Your task to perform on an android device: turn vacation reply on in the gmail app Image 0: 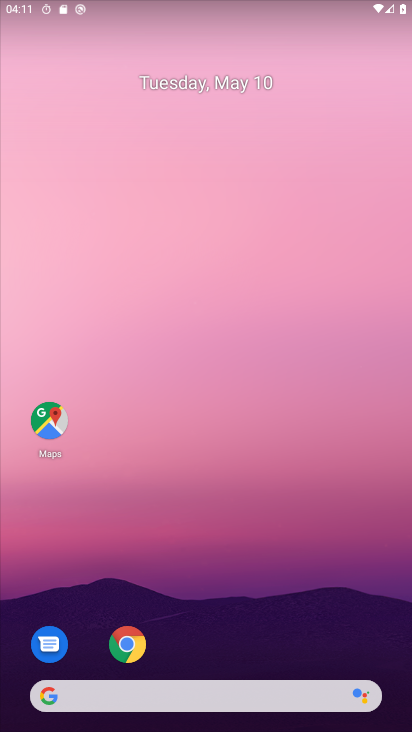
Step 0: drag from (205, 634) to (254, 88)
Your task to perform on an android device: turn vacation reply on in the gmail app Image 1: 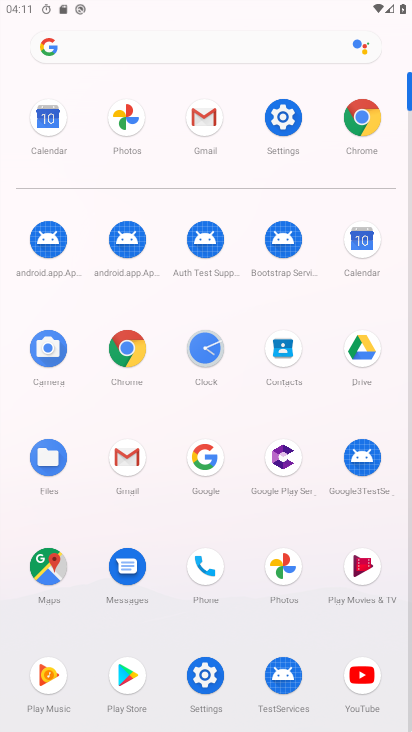
Step 1: click (127, 447)
Your task to perform on an android device: turn vacation reply on in the gmail app Image 2: 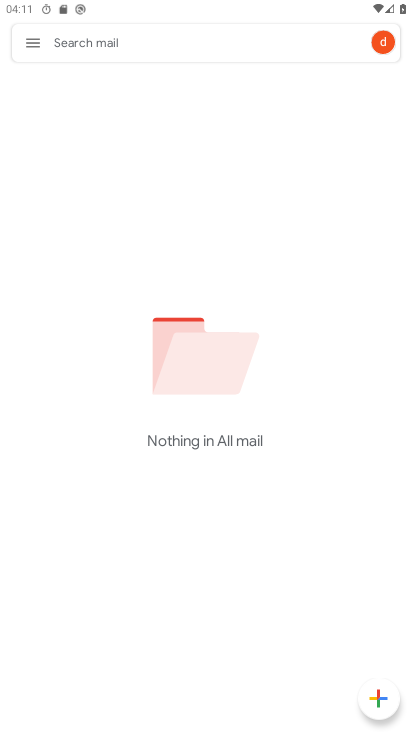
Step 2: click (26, 35)
Your task to perform on an android device: turn vacation reply on in the gmail app Image 3: 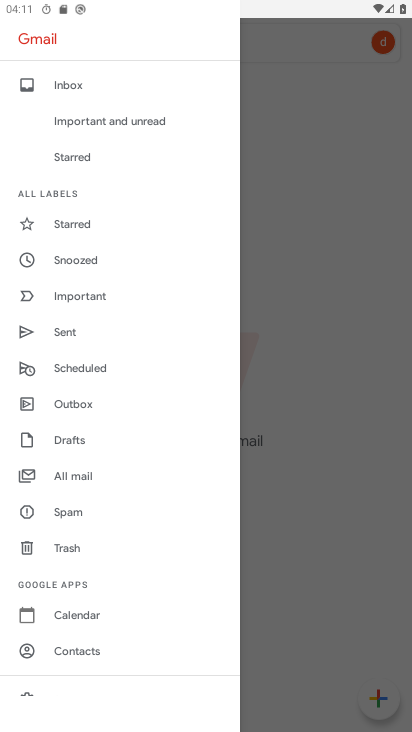
Step 3: drag from (118, 627) to (181, 123)
Your task to perform on an android device: turn vacation reply on in the gmail app Image 4: 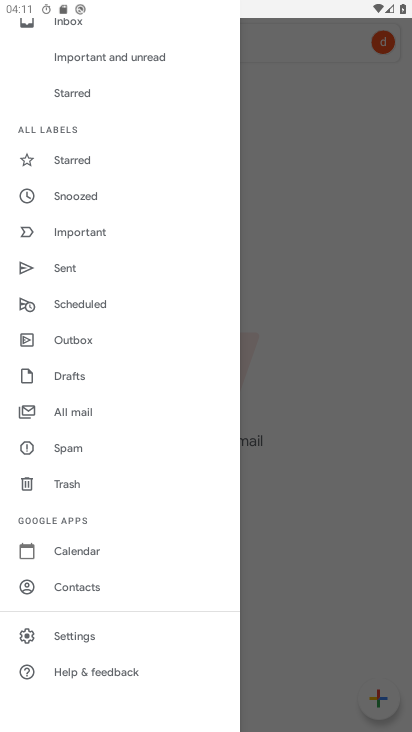
Step 4: click (97, 628)
Your task to perform on an android device: turn vacation reply on in the gmail app Image 5: 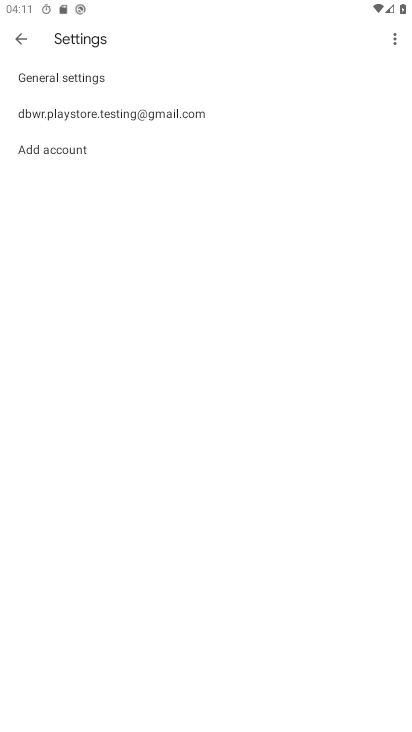
Step 5: click (147, 108)
Your task to perform on an android device: turn vacation reply on in the gmail app Image 6: 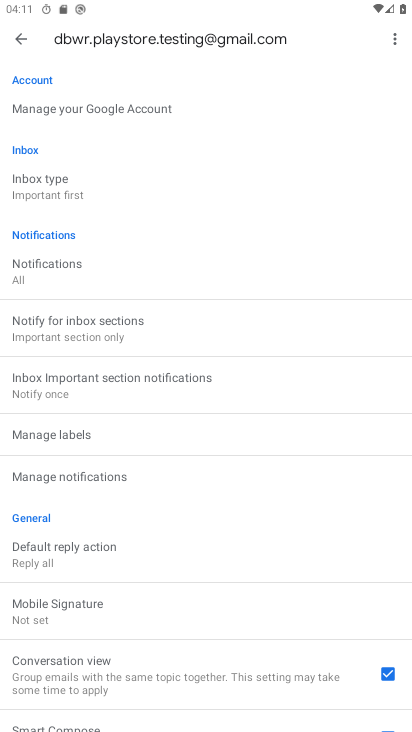
Step 6: drag from (122, 636) to (160, 169)
Your task to perform on an android device: turn vacation reply on in the gmail app Image 7: 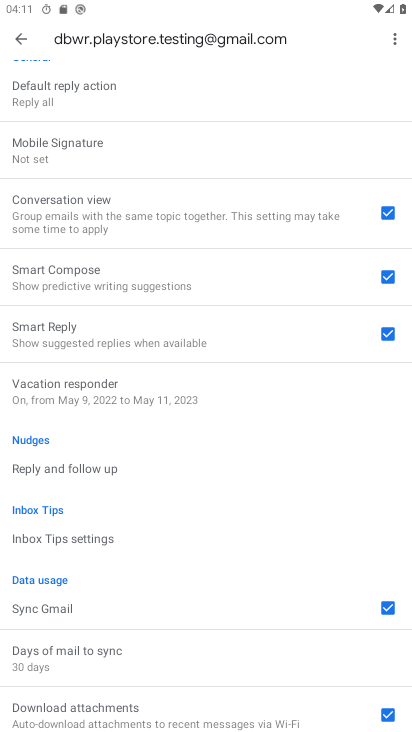
Step 7: click (93, 383)
Your task to perform on an android device: turn vacation reply on in the gmail app Image 8: 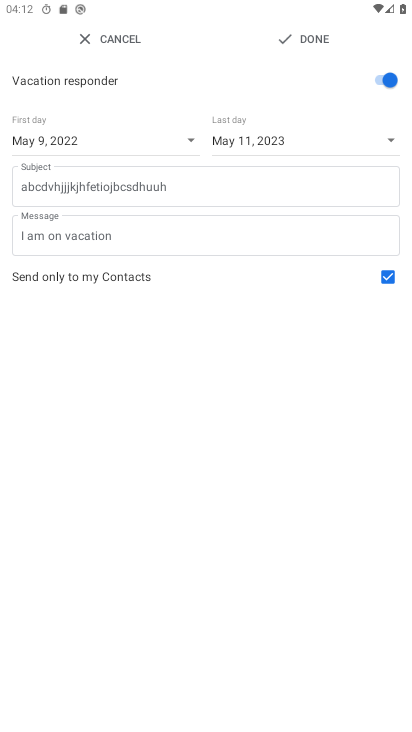
Step 8: task complete